Your task to perform on an android device: Is it going to rain this weekend? Image 0: 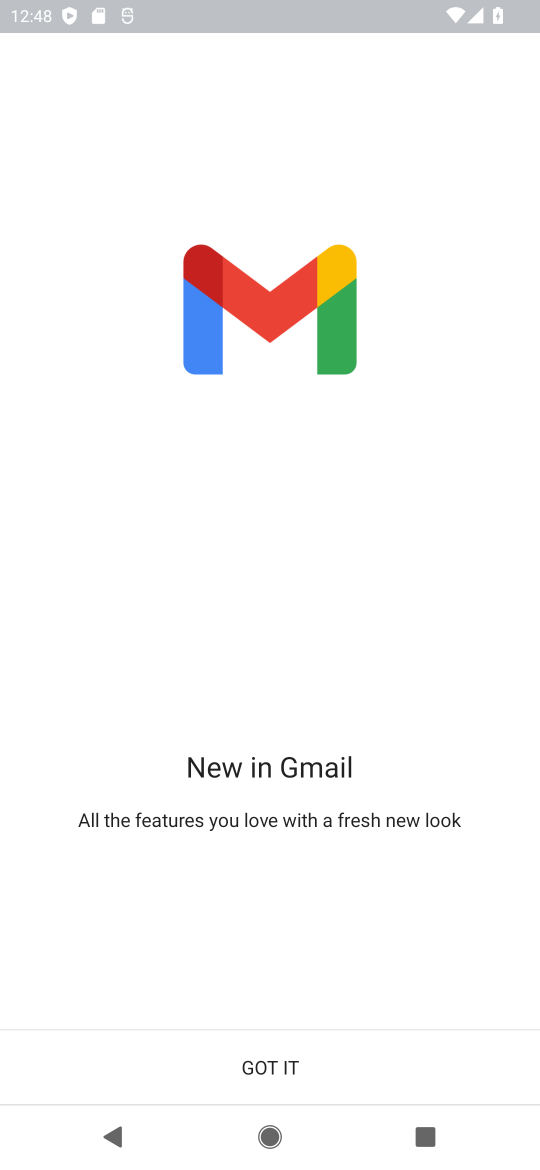
Step 0: press home button
Your task to perform on an android device: Is it going to rain this weekend? Image 1: 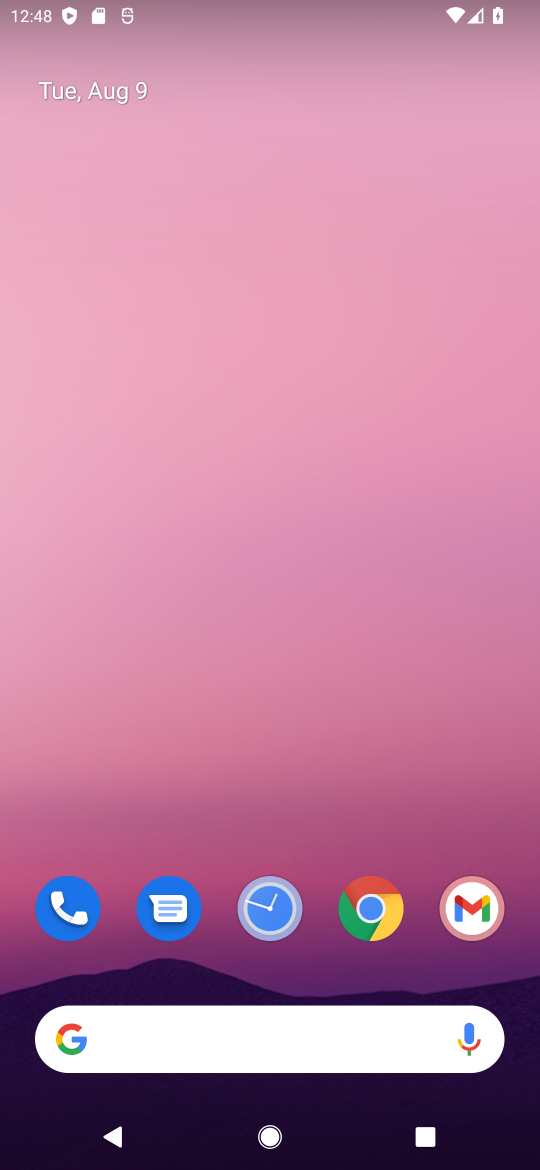
Step 1: click (179, 1046)
Your task to perform on an android device: Is it going to rain this weekend? Image 2: 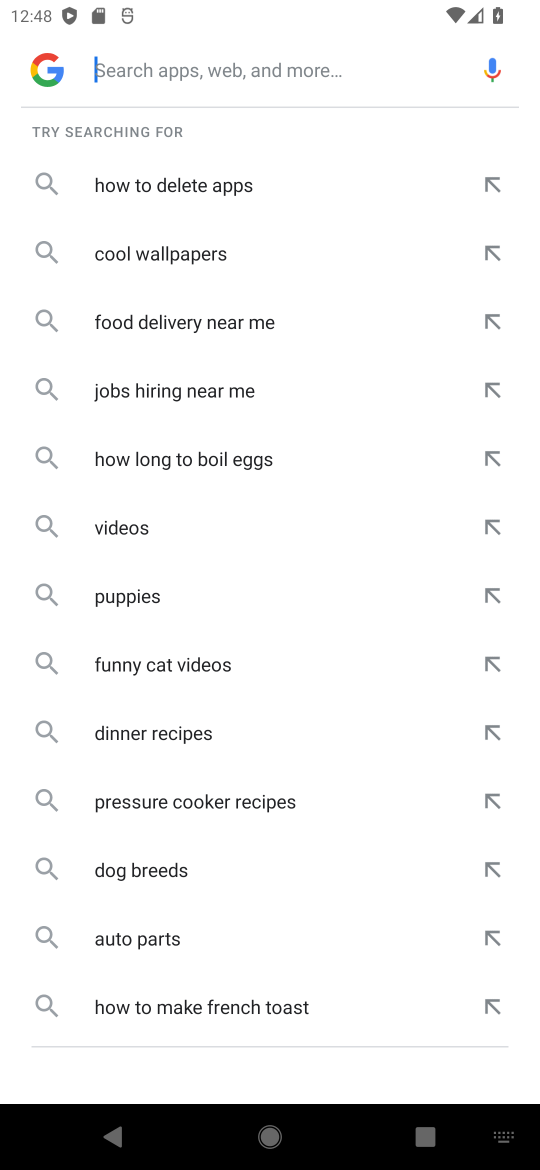
Step 2: type "weather"
Your task to perform on an android device: Is it going to rain this weekend? Image 3: 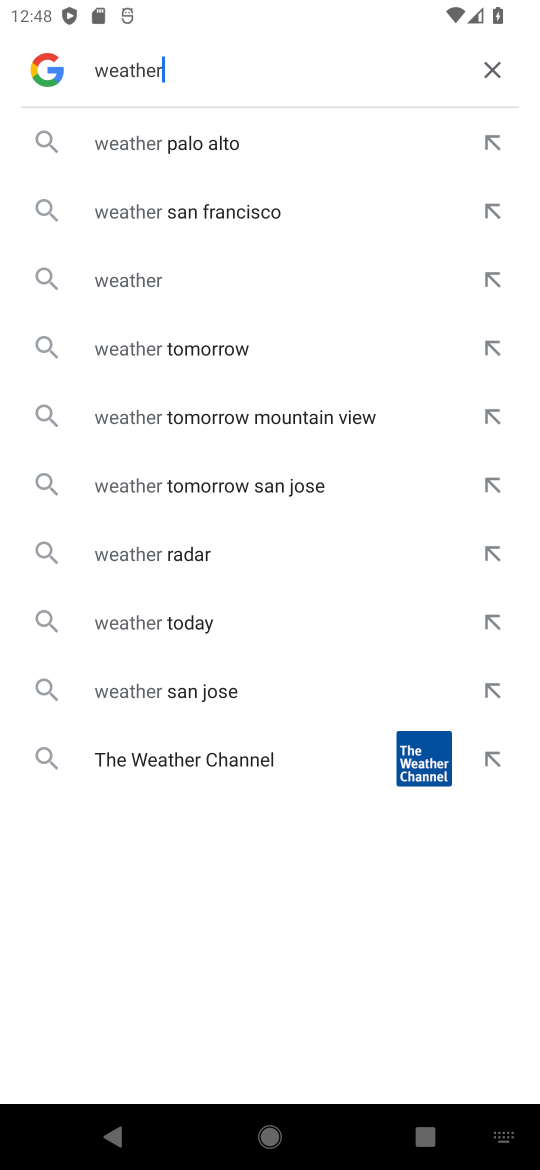
Step 3: click (111, 283)
Your task to perform on an android device: Is it going to rain this weekend? Image 4: 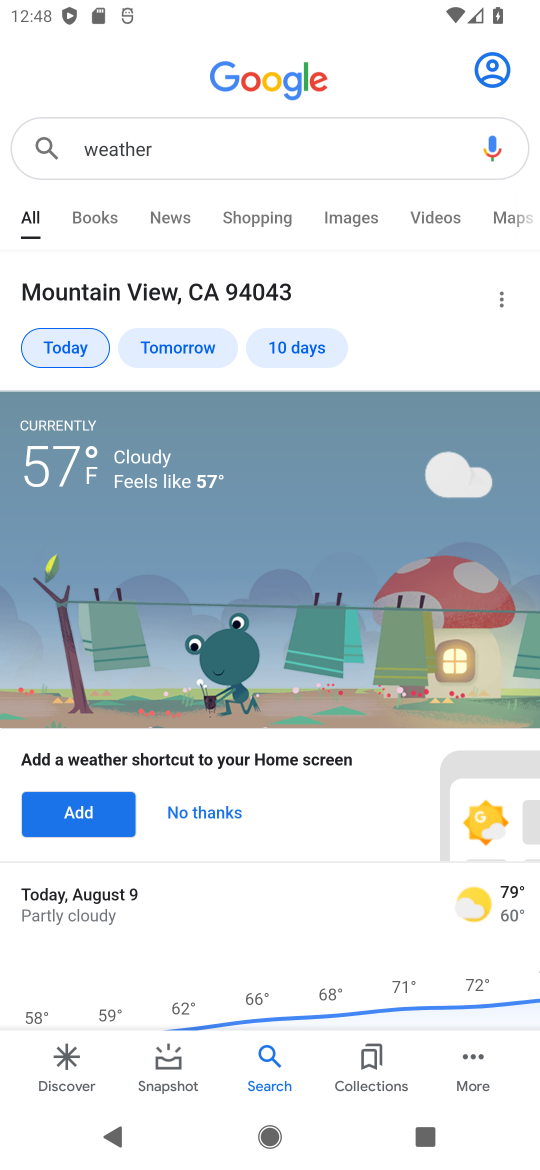
Step 4: task complete